Your task to perform on an android device: turn off notifications settings in the gmail app Image 0: 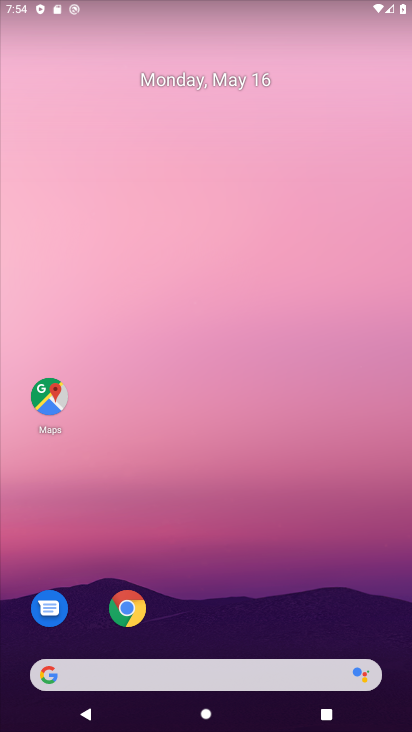
Step 0: drag from (28, 615) to (207, 304)
Your task to perform on an android device: turn off notifications settings in the gmail app Image 1: 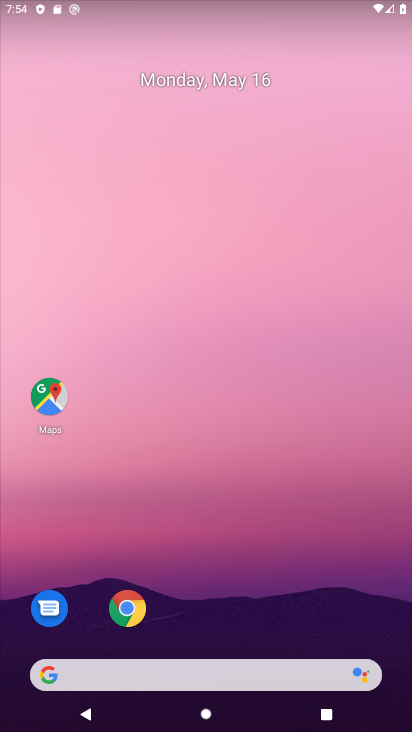
Step 1: drag from (65, 393) to (273, 118)
Your task to perform on an android device: turn off notifications settings in the gmail app Image 2: 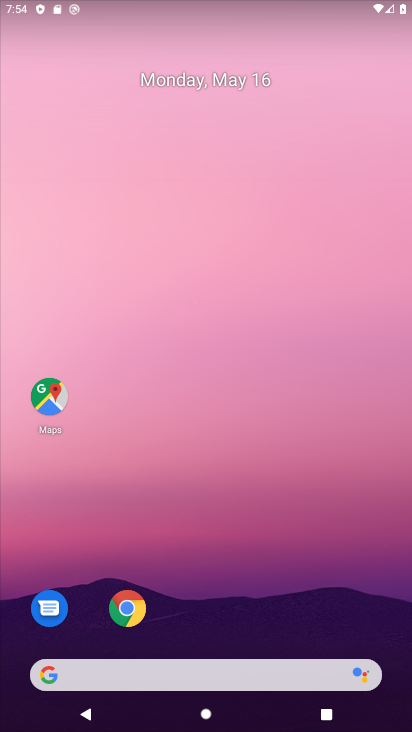
Step 2: drag from (102, 551) to (407, 120)
Your task to perform on an android device: turn off notifications settings in the gmail app Image 3: 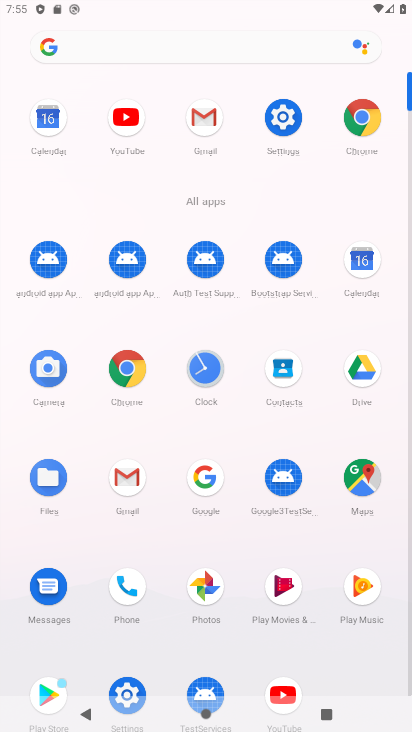
Step 3: click (125, 484)
Your task to perform on an android device: turn off notifications settings in the gmail app Image 4: 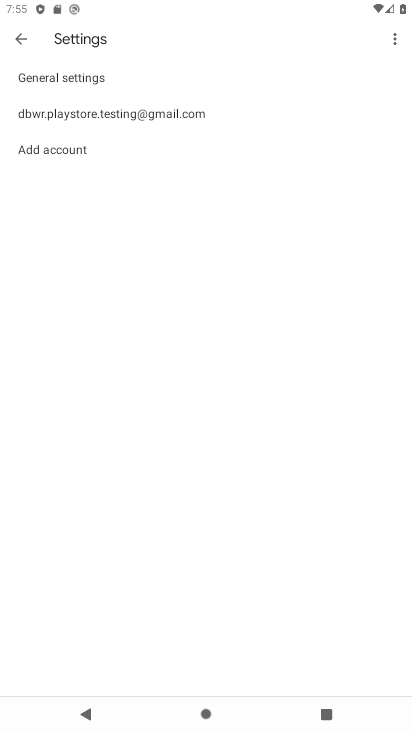
Step 4: click (129, 495)
Your task to perform on an android device: turn off notifications settings in the gmail app Image 5: 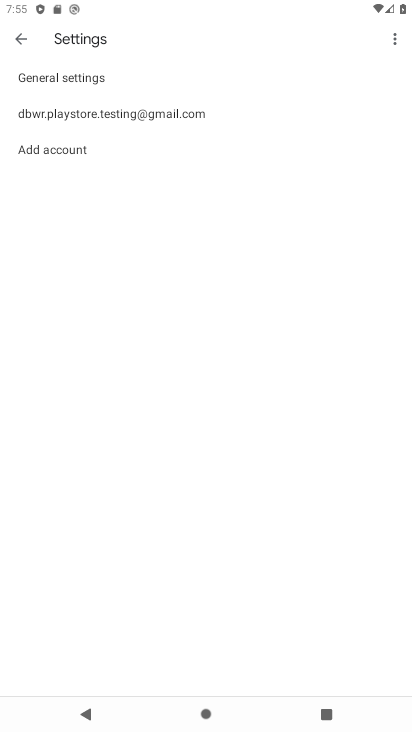
Step 5: click (184, 108)
Your task to perform on an android device: turn off notifications settings in the gmail app Image 6: 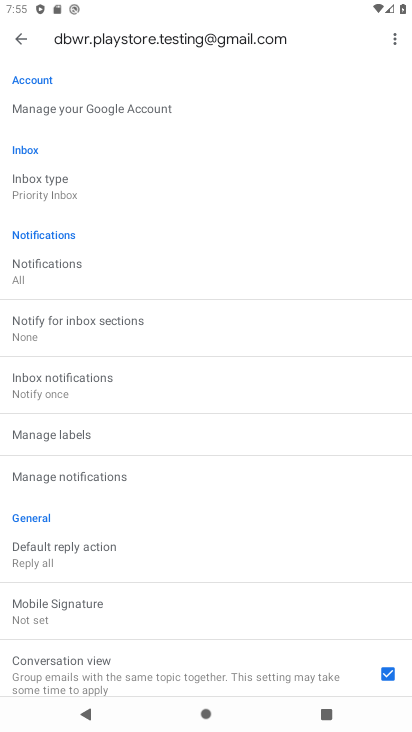
Step 6: click (81, 482)
Your task to perform on an android device: turn off notifications settings in the gmail app Image 7: 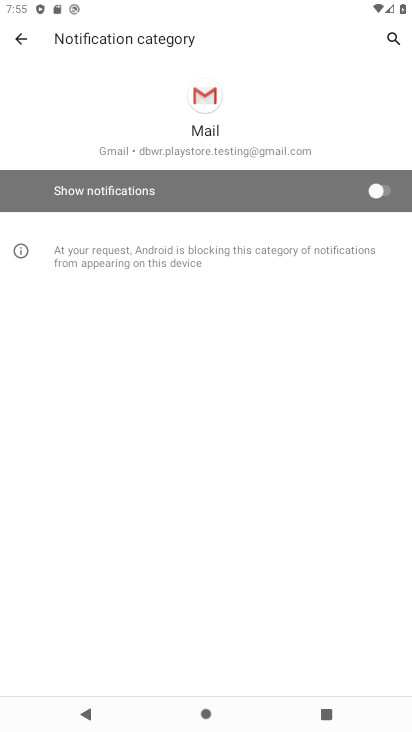
Step 7: task complete